Your task to perform on an android device: open the mobile data screen to see how much data has been used Image 0: 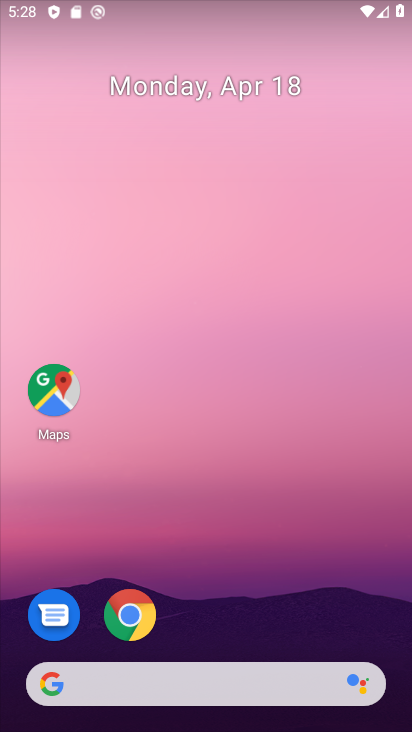
Step 0: drag from (147, 410) to (211, 1)
Your task to perform on an android device: open the mobile data screen to see how much data has been used Image 1: 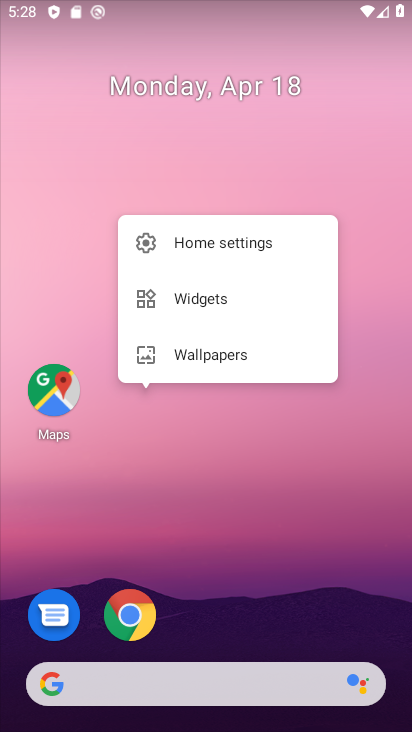
Step 1: click (261, 565)
Your task to perform on an android device: open the mobile data screen to see how much data has been used Image 2: 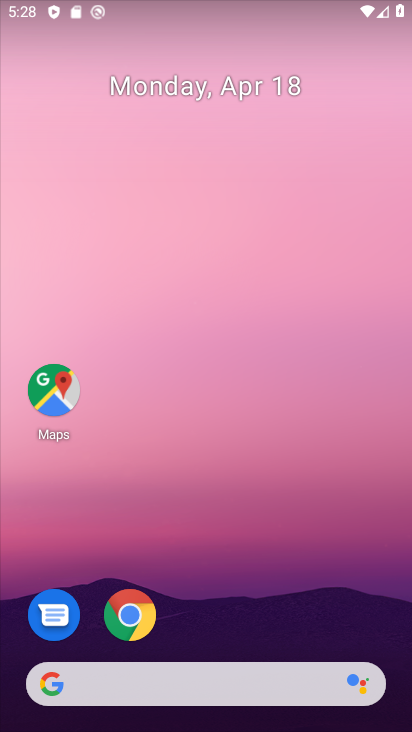
Step 2: drag from (261, 565) to (293, 35)
Your task to perform on an android device: open the mobile data screen to see how much data has been used Image 3: 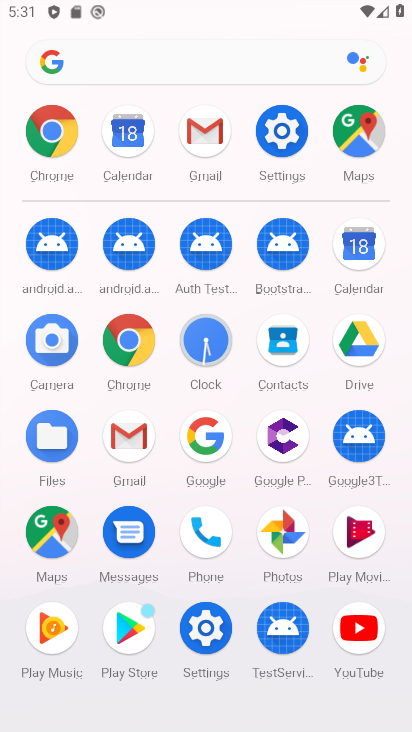
Step 3: drag from (310, 0) to (316, 668)
Your task to perform on an android device: open the mobile data screen to see how much data has been used Image 4: 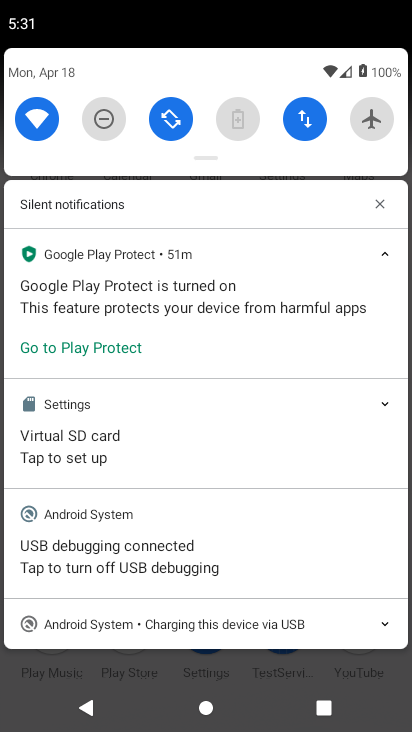
Step 4: click (314, 115)
Your task to perform on an android device: open the mobile data screen to see how much data has been used Image 5: 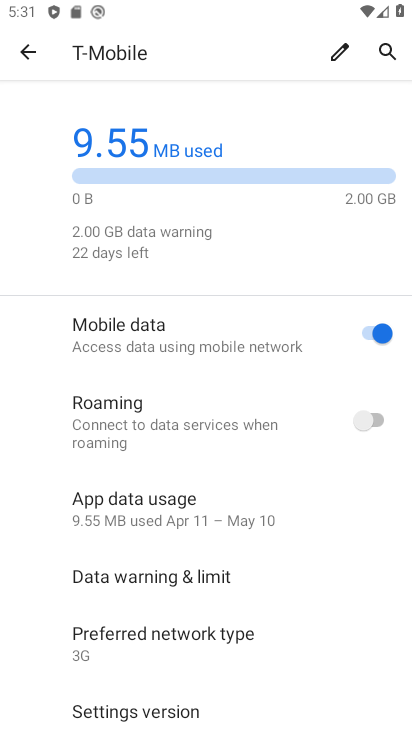
Step 5: task complete